Your task to perform on an android device: show emergency info Image 0: 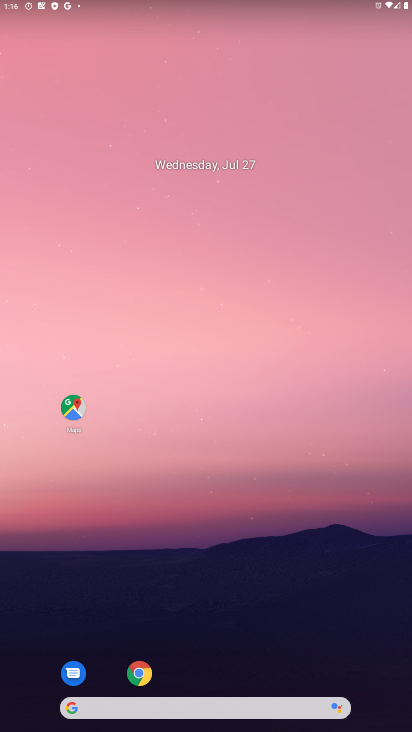
Step 0: drag from (275, 619) to (318, 3)
Your task to perform on an android device: show emergency info Image 1: 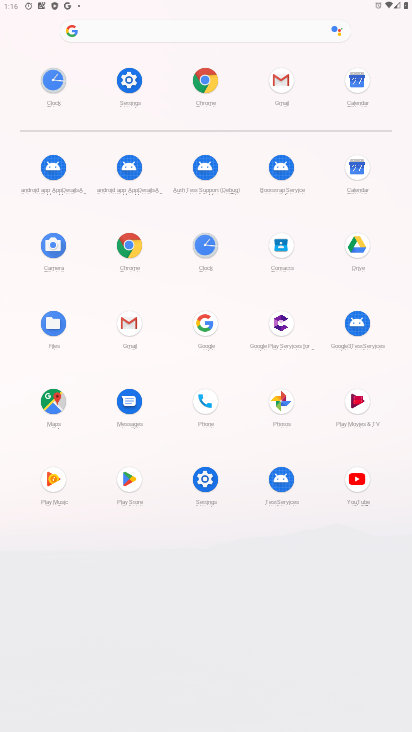
Step 1: click (137, 76)
Your task to perform on an android device: show emergency info Image 2: 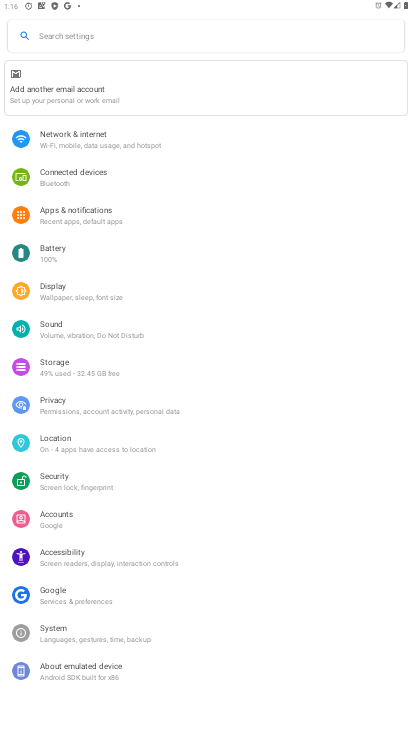
Step 2: click (62, 667)
Your task to perform on an android device: show emergency info Image 3: 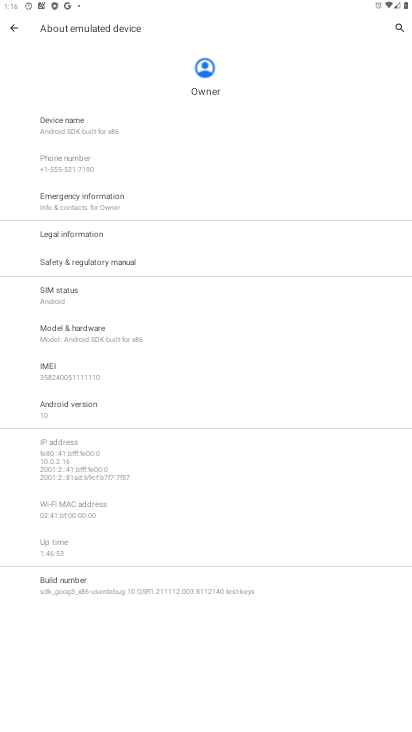
Step 3: click (97, 205)
Your task to perform on an android device: show emergency info Image 4: 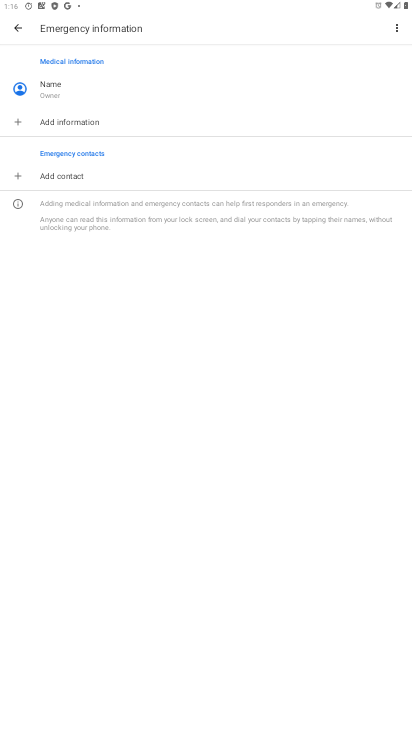
Step 4: task complete